Your task to perform on an android device: Open Google Chrome and click the shortcut for Amazon.com Image 0: 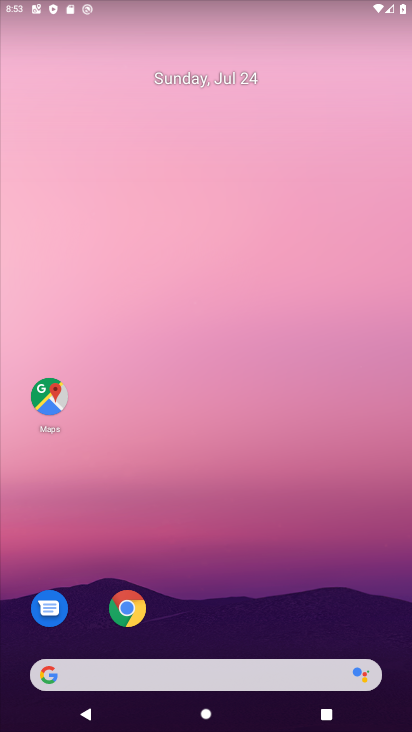
Step 0: click (135, 614)
Your task to perform on an android device: Open Google Chrome and click the shortcut for Amazon.com Image 1: 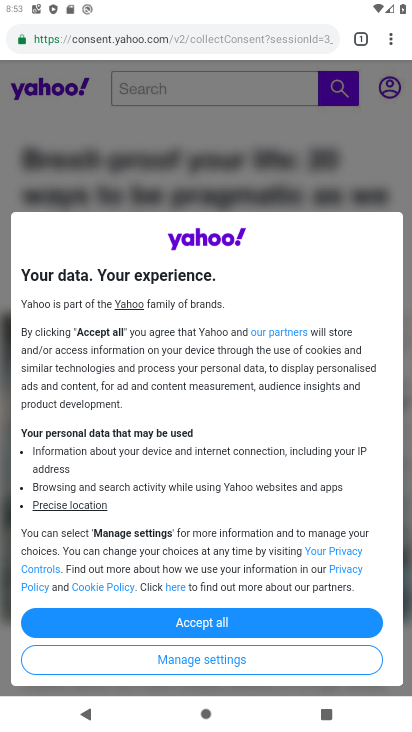
Step 1: click (393, 39)
Your task to perform on an android device: Open Google Chrome and click the shortcut for Amazon.com Image 2: 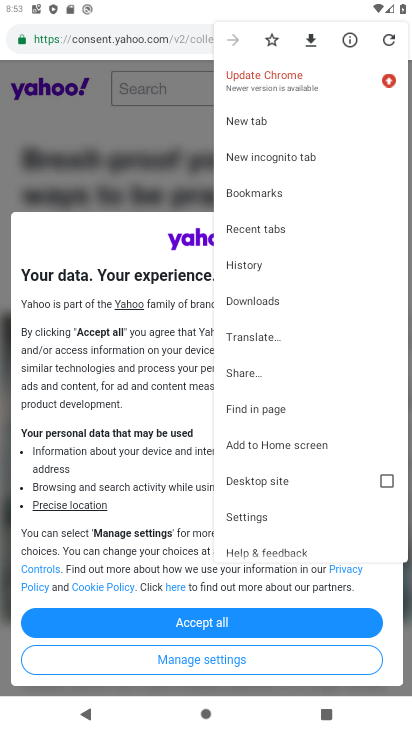
Step 2: click (258, 124)
Your task to perform on an android device: Open Google Chrome and click the shortcut for Amazon.com Image 3: 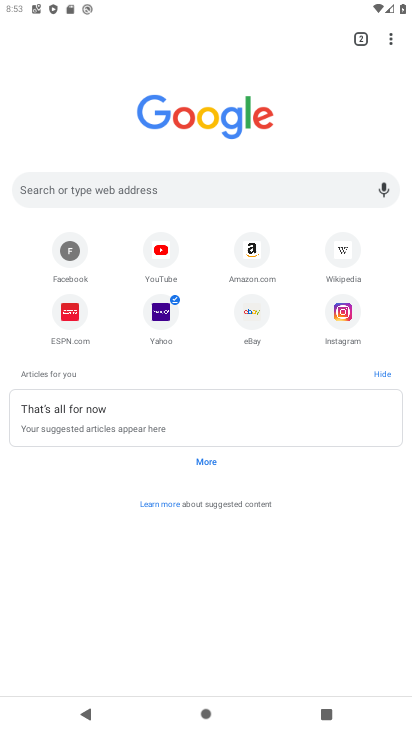
Step 3: click (251, 250)
Your task to perform on an android device: Open Google Chrome and click the shortcut for Amazon.com Image 4: 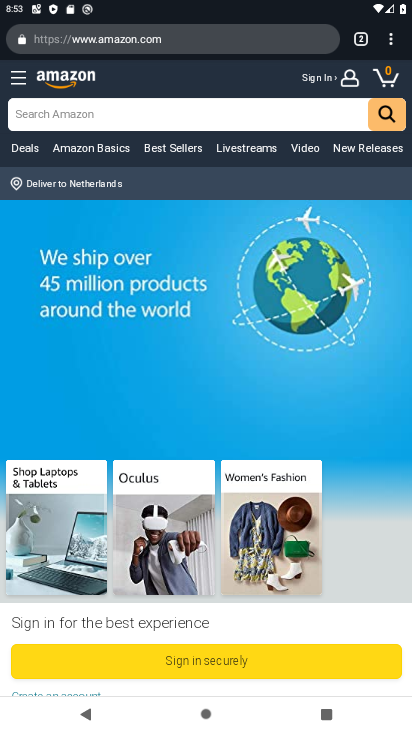
Step 4: task complete